Your task to perform on an android device: Go to Google maps Image 0: 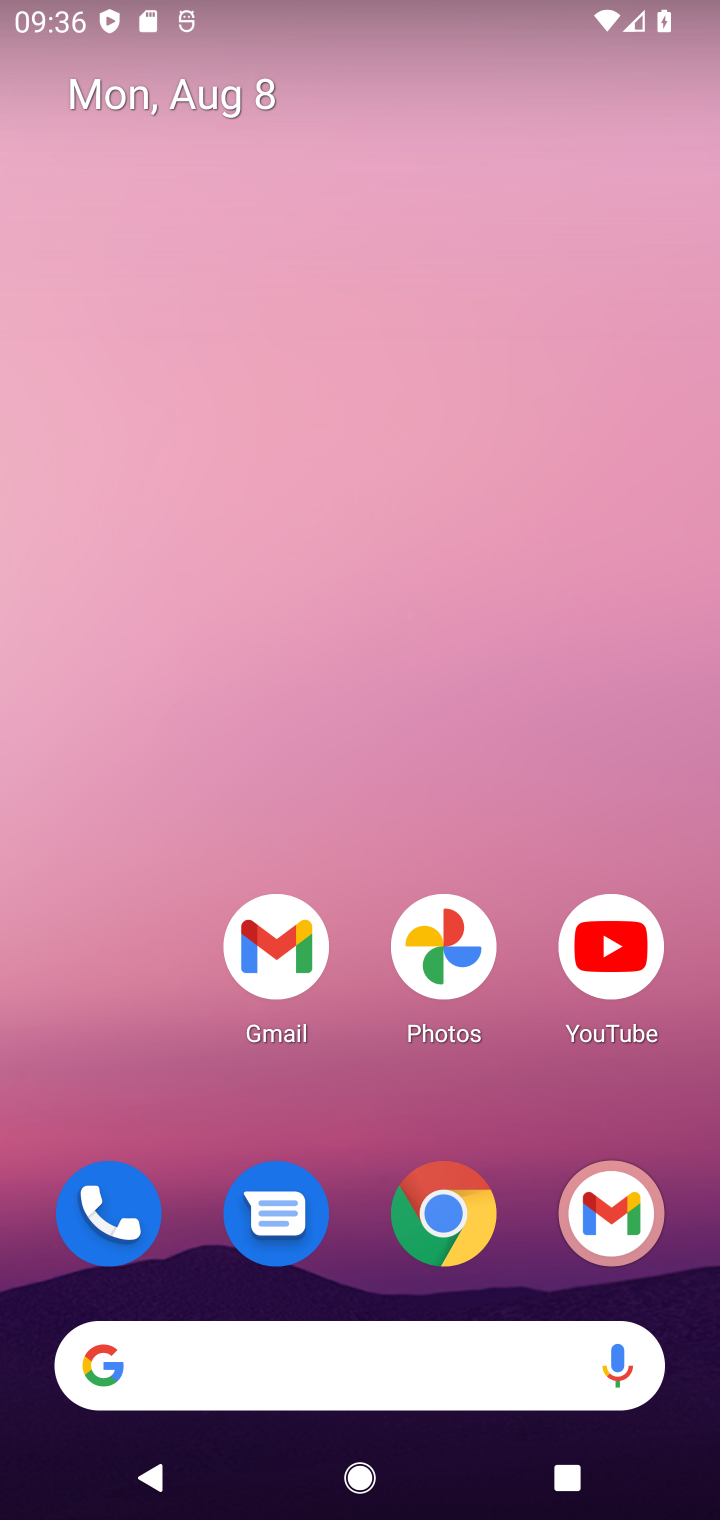
Step 0: drag from (349, 1162) to (349, 315)
Your task to perform on an android device: Go to Google maps Image 1: 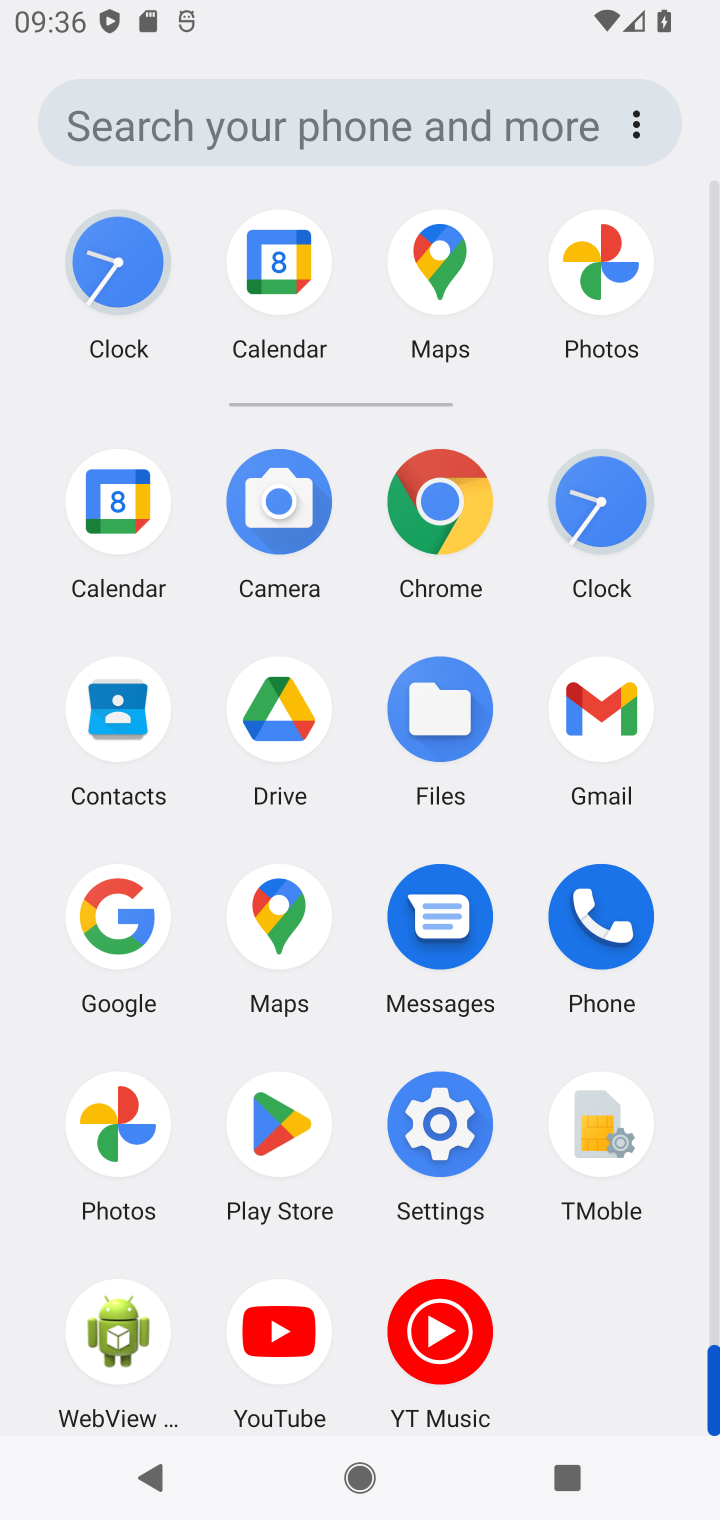
Step 1: click (267, 949)
Your task to perform on an android device: Go to Google maps Image 2: 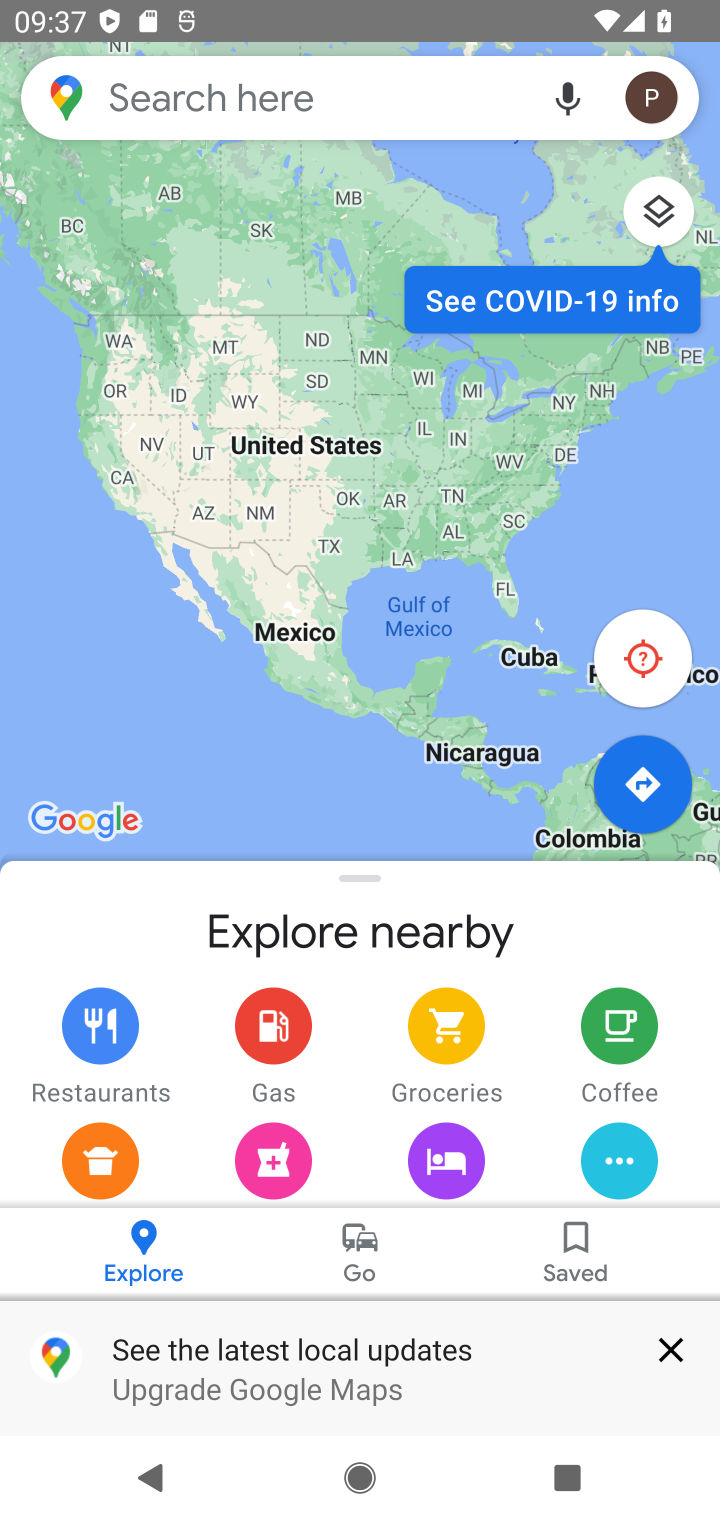
Step 2: task complete